Your task to perform on an android device: Clear all items from cart on bestbuy. Add logitech g933 to the cart on bestbuy Image 0: 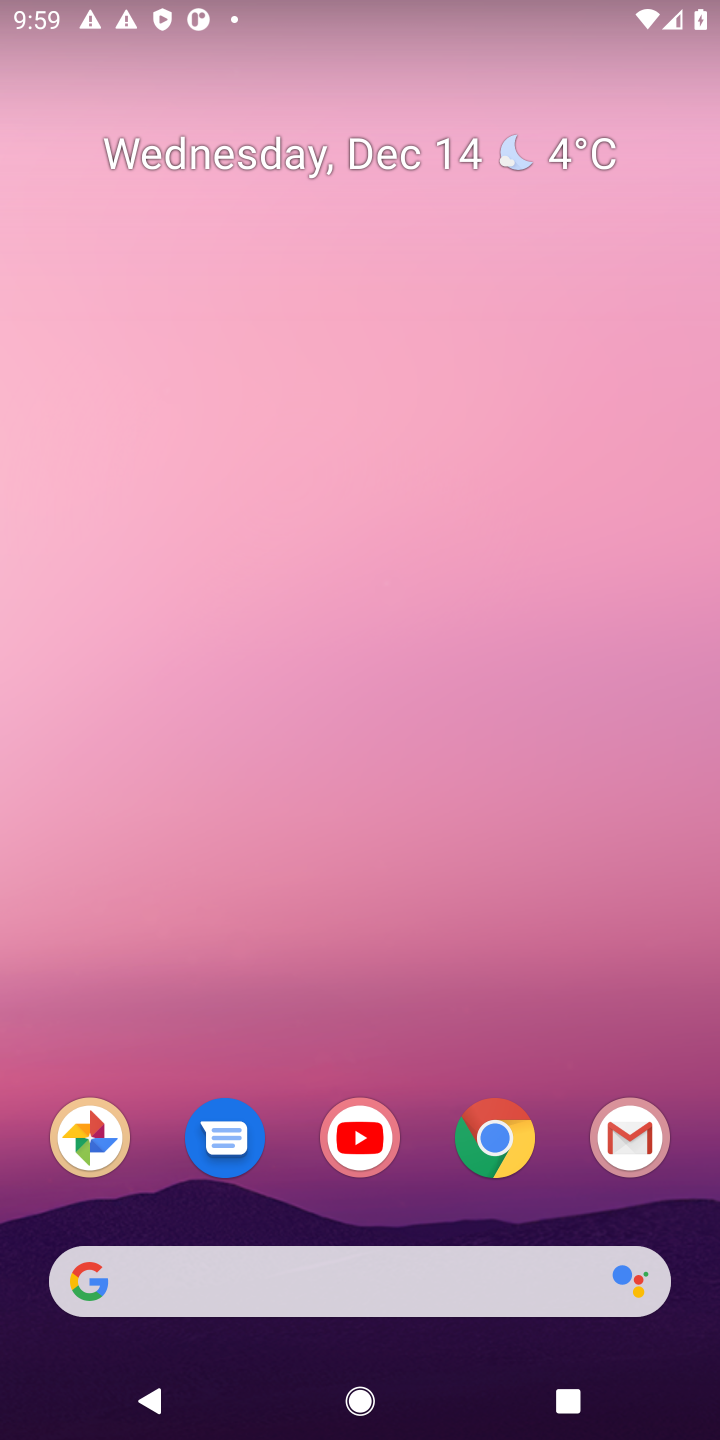
Step 0: click (478, 1155)
Your task to perform on an android device: Clear all items from cart on bestbuy. Add logitech g933 to the cart on bestbuy Image 1: 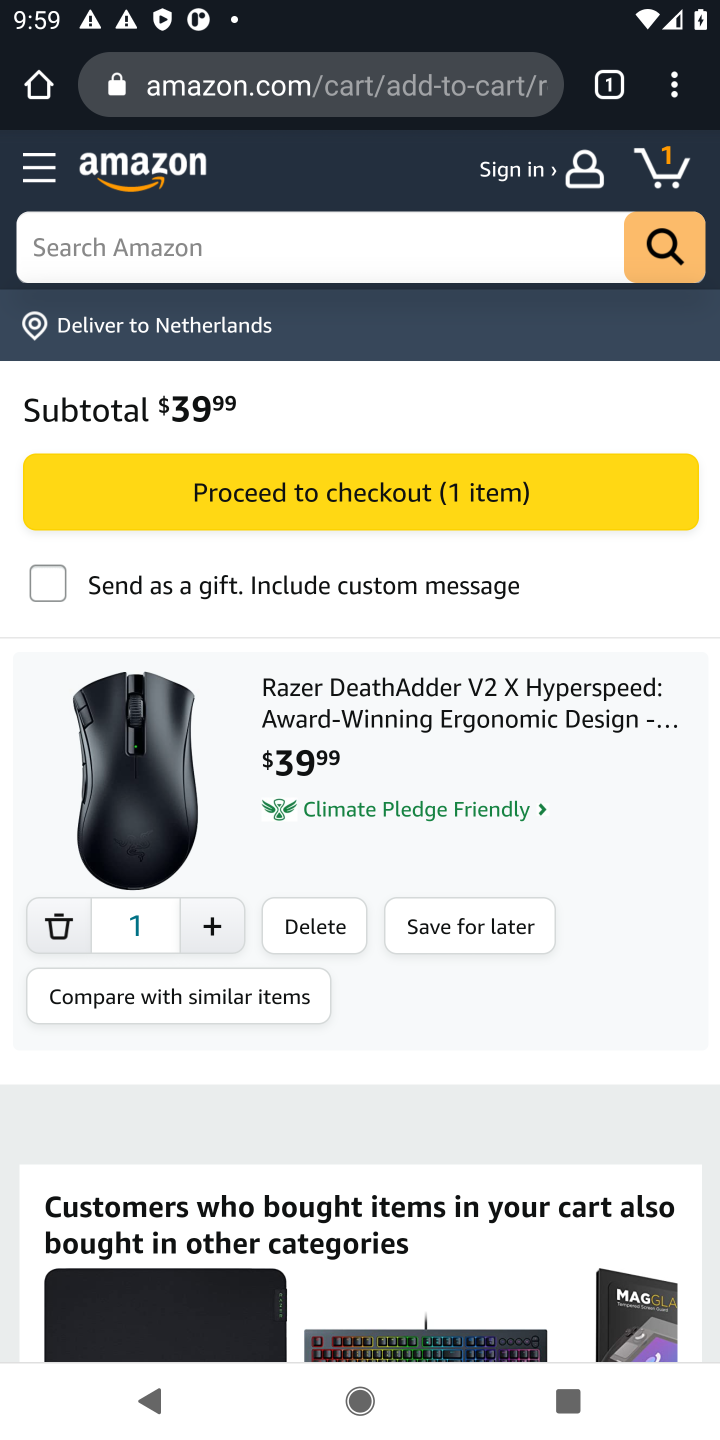
Step 1: click (259, 93)
Your task to perform on an android device: Clear all items from cart on bestbuy. Add logitech g933 to the cart on bestbuy Image 2: 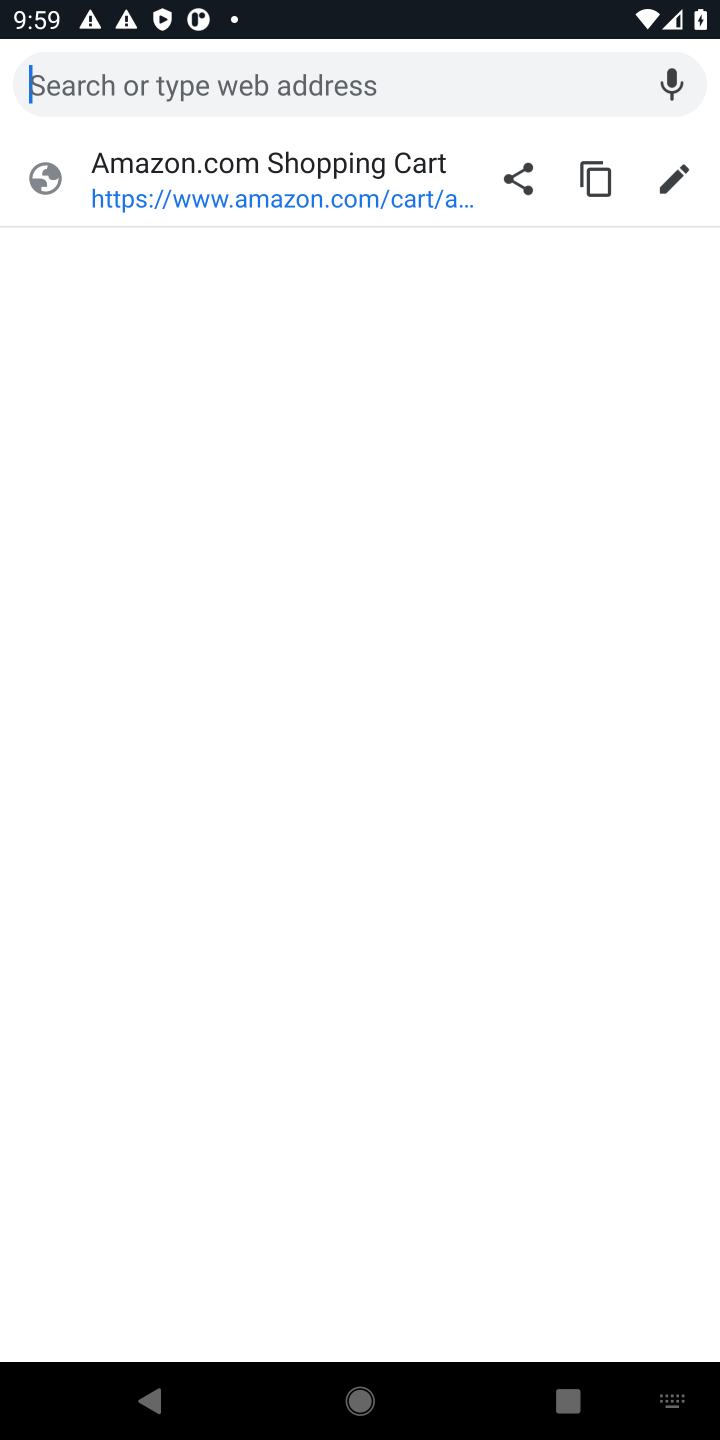
Step 2: type "bestbuy.com"
Your task to perform on an android device: Clear all items from cart on bestbuy. Add logitech g933 to the cart on bestbuy Image 3: 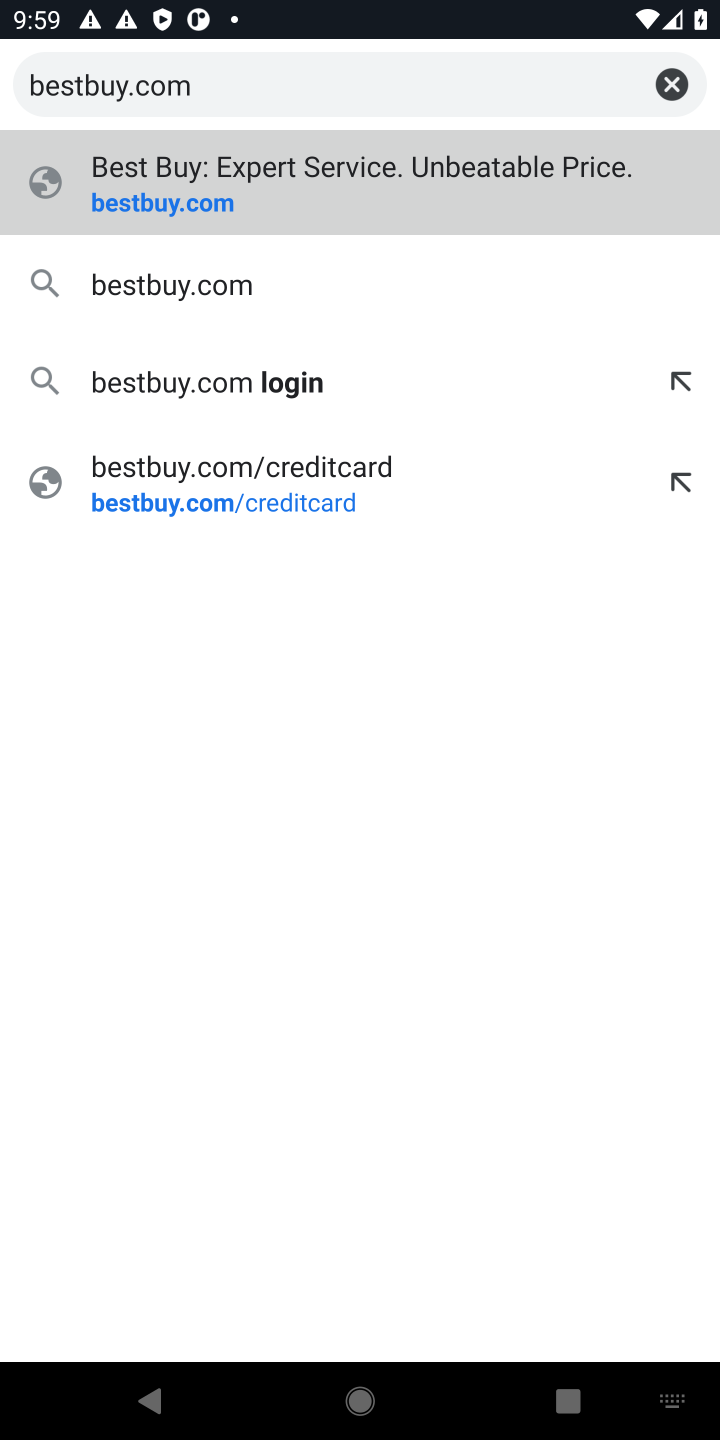
Step 3: click (132, 210)
Your task to perform on an android device: Clear all items from cart on bestbuy. Add logitech g933 to the cart on bestbuy Image 4: 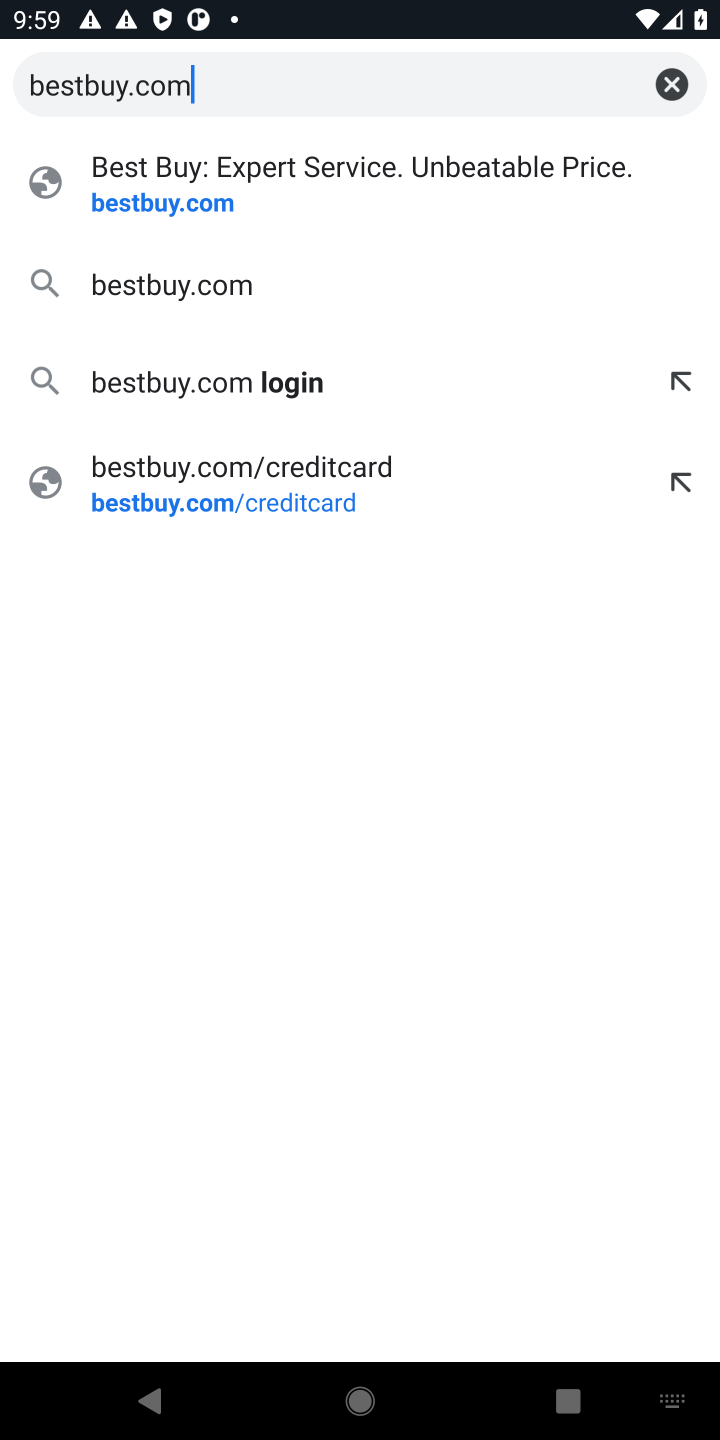
Step 4: click (126, 194)
Your task to perform on an android device: Clear all items from cart on bestbuy. Add logitech g933 to the cart on bestbuy Image 5: 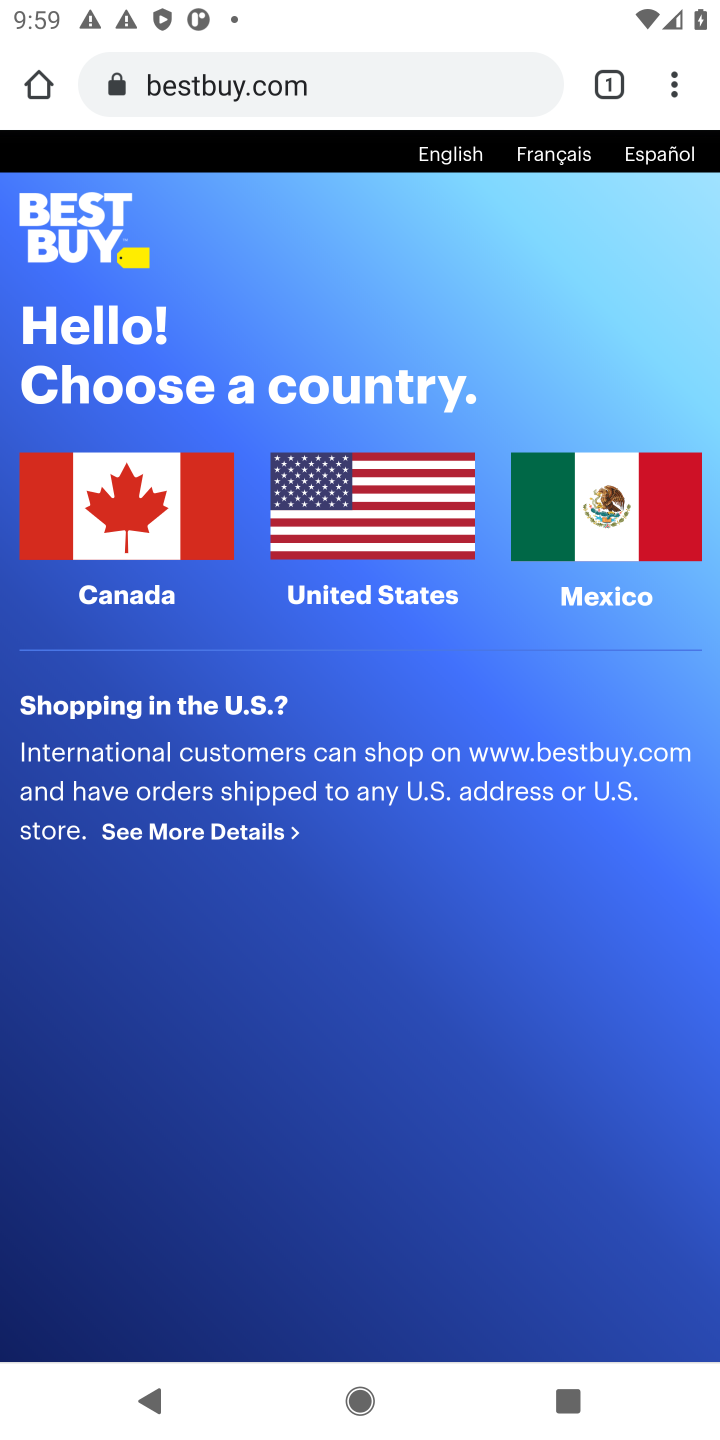
Step 5: click (380, 514)
Your task to perform on an android device: Clear all items from cart on bestbuy. Add logitech g933 to the cart on bestbuy Image 6: 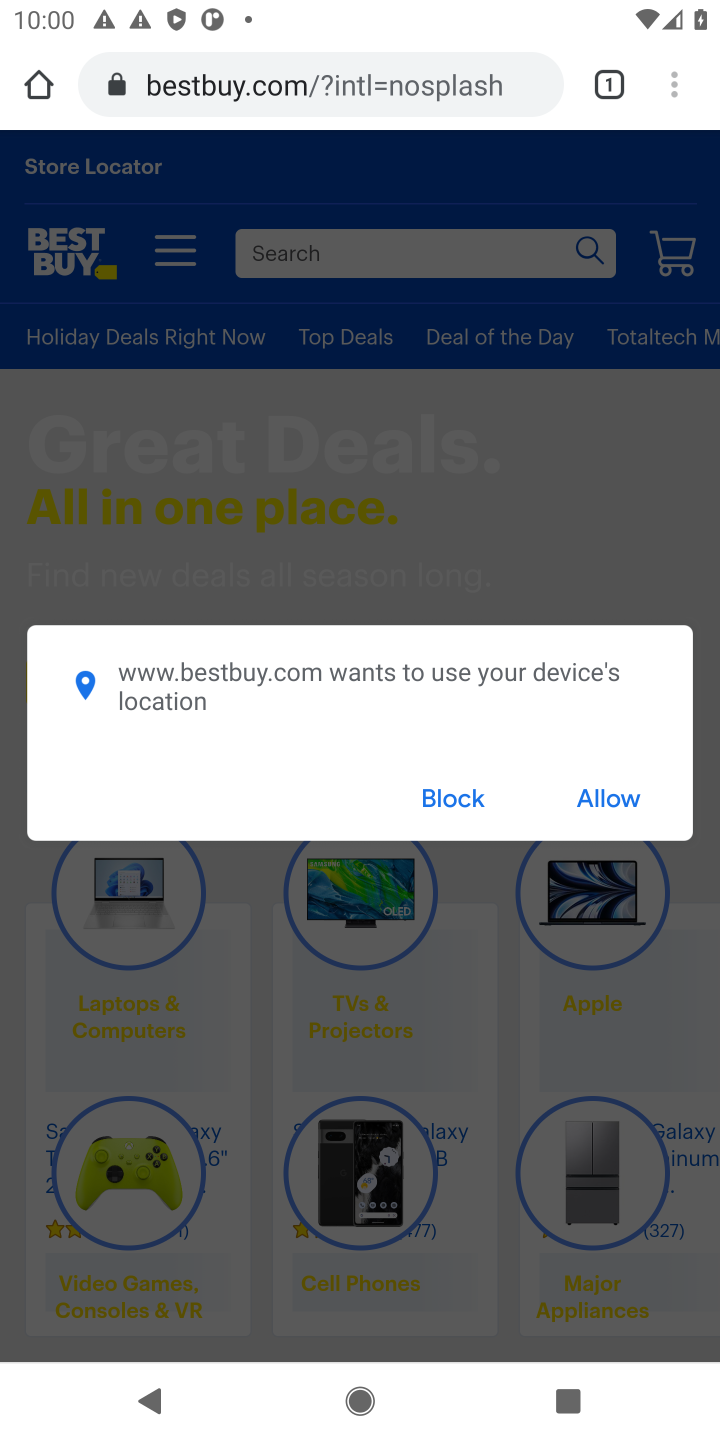
Step 6: click (423, 793)
Your task to perform on an android device: Clear all items from cart on bestbuy. Add logitech g933 to the cart on bestbuy Image 7: 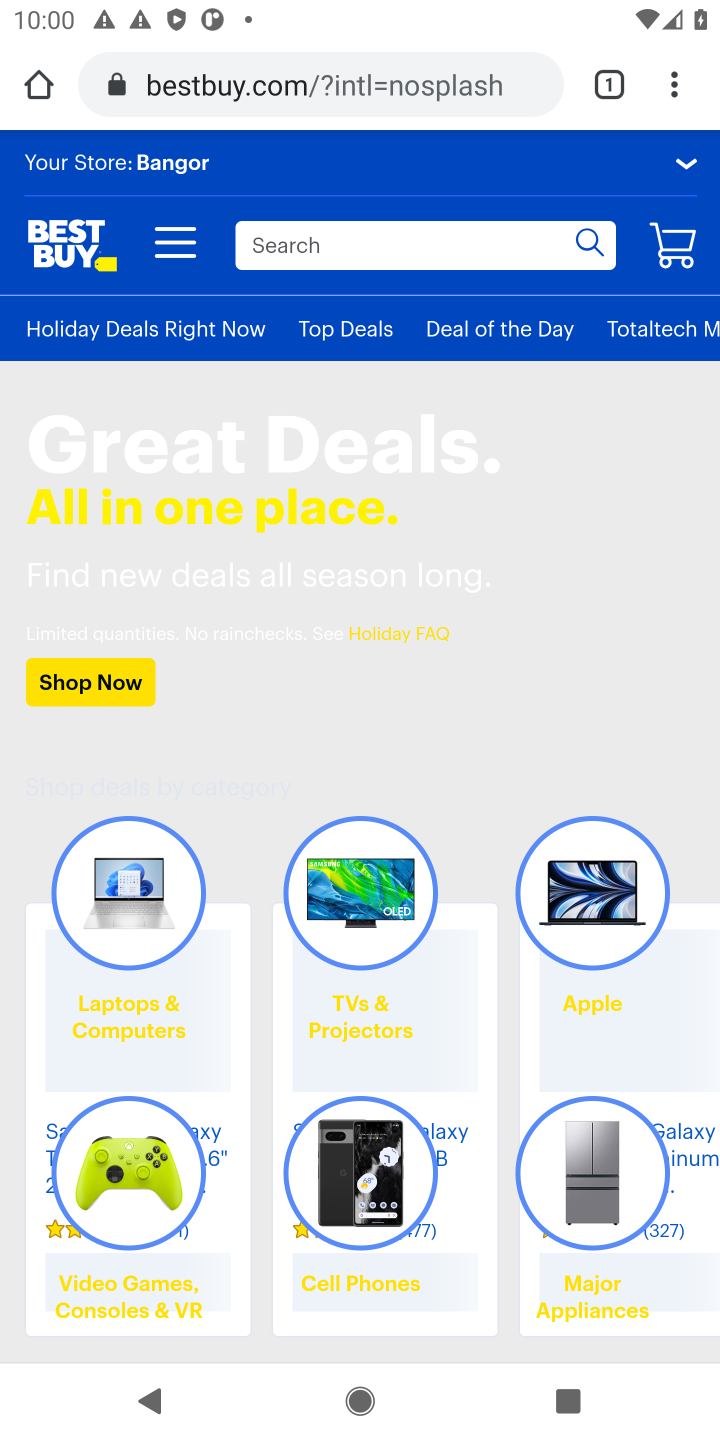
Step 7: click (674, 257)
Your task to perform on an android device: Clear all items from cart on bestbuy. Add logitech g933 to the cart on bestbuy Image 8: 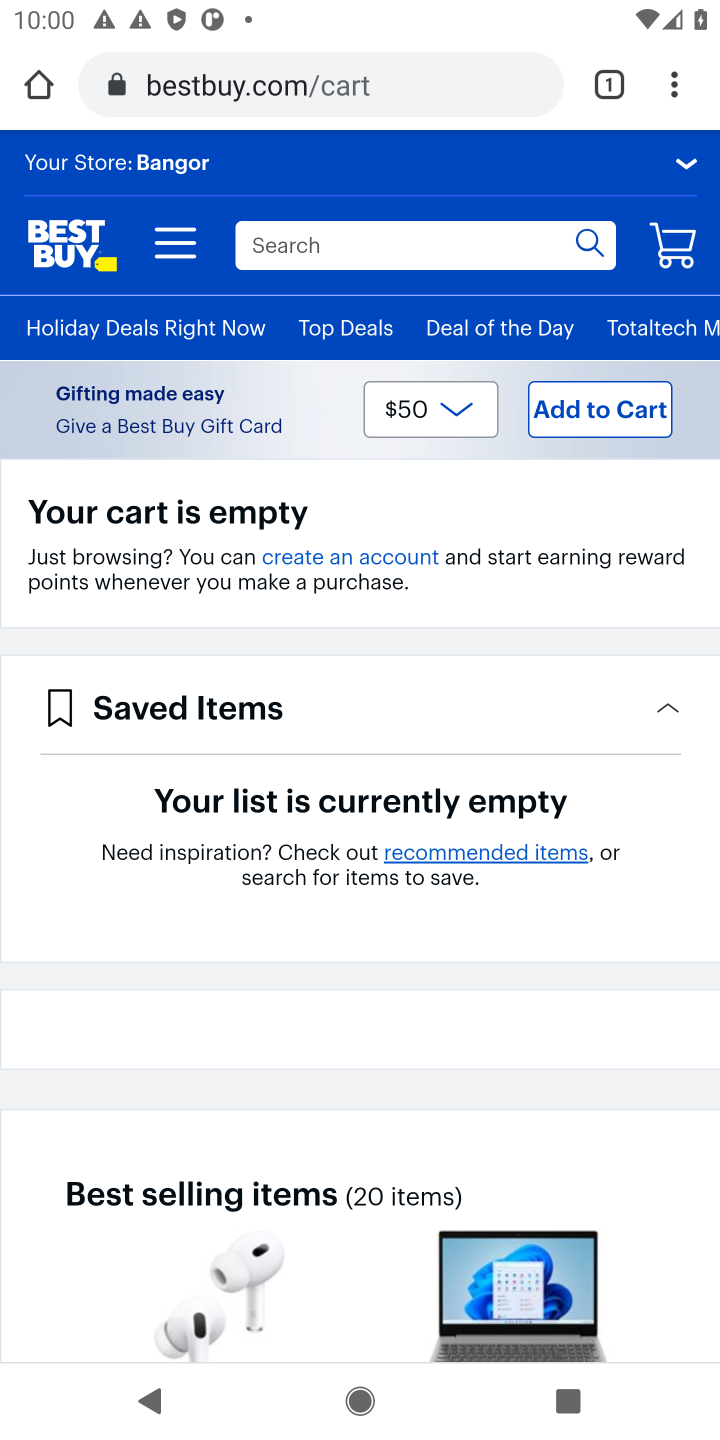
Step 8: click (302, 242)
Your task to perform on an android device: Clear all items from cart on bestbuy. Add logitech g933 to the cart on bestbuy Image 9: 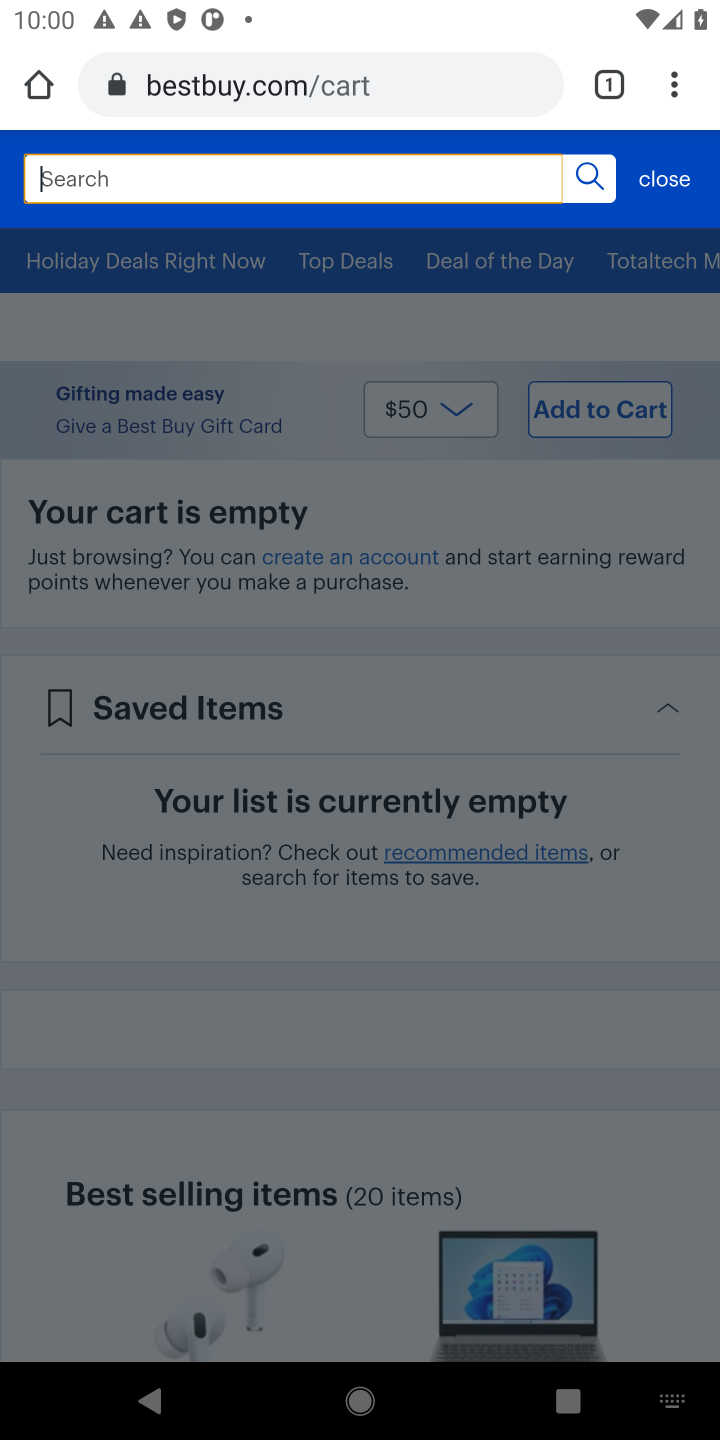
Step 9: type " logitech g933"
Your task to perform on an android device: Clear all items from cart on bestbuy. Add logitech g933 to the cart on bestbuy Image 10: 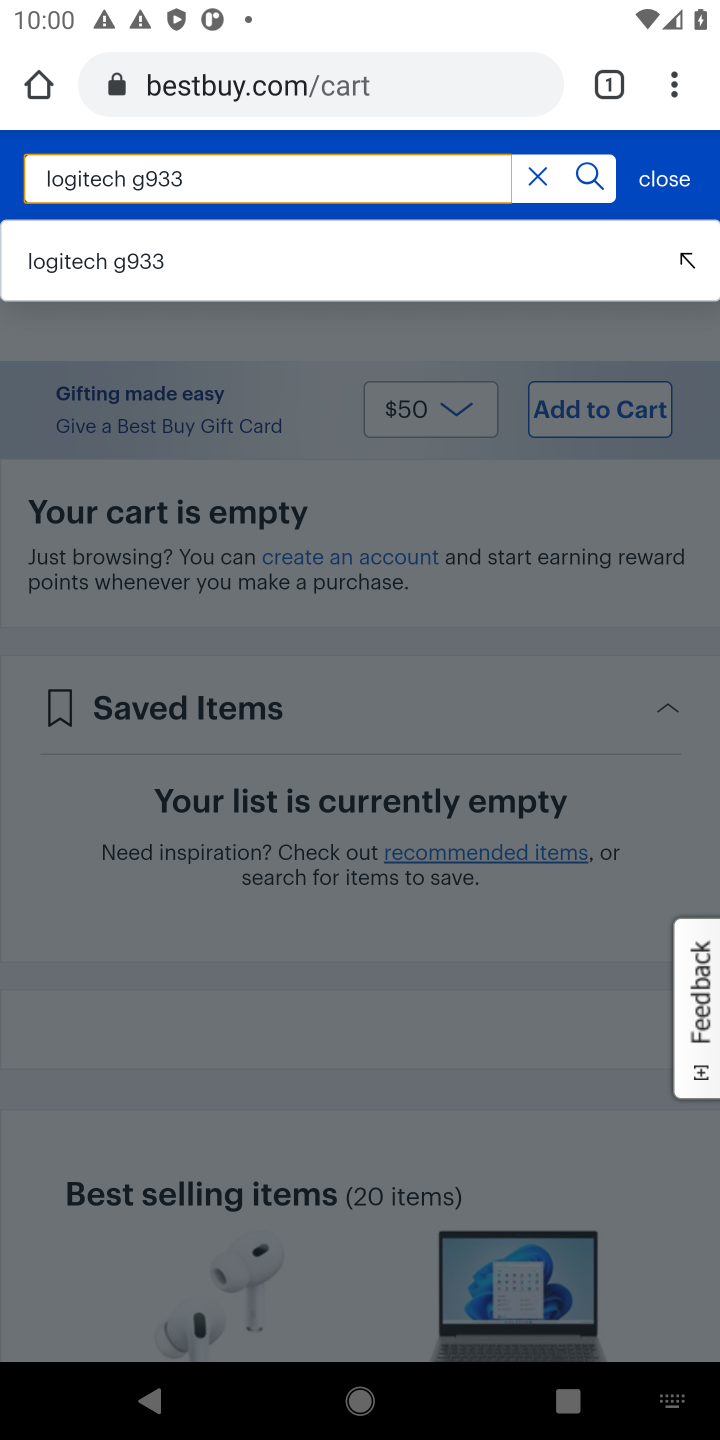
Step 10: click (69, 273)
Your task to perform on an android device: Clear all items from cart on bestbuy. Add logitech g933 to the cart on bestbuy Image 11: 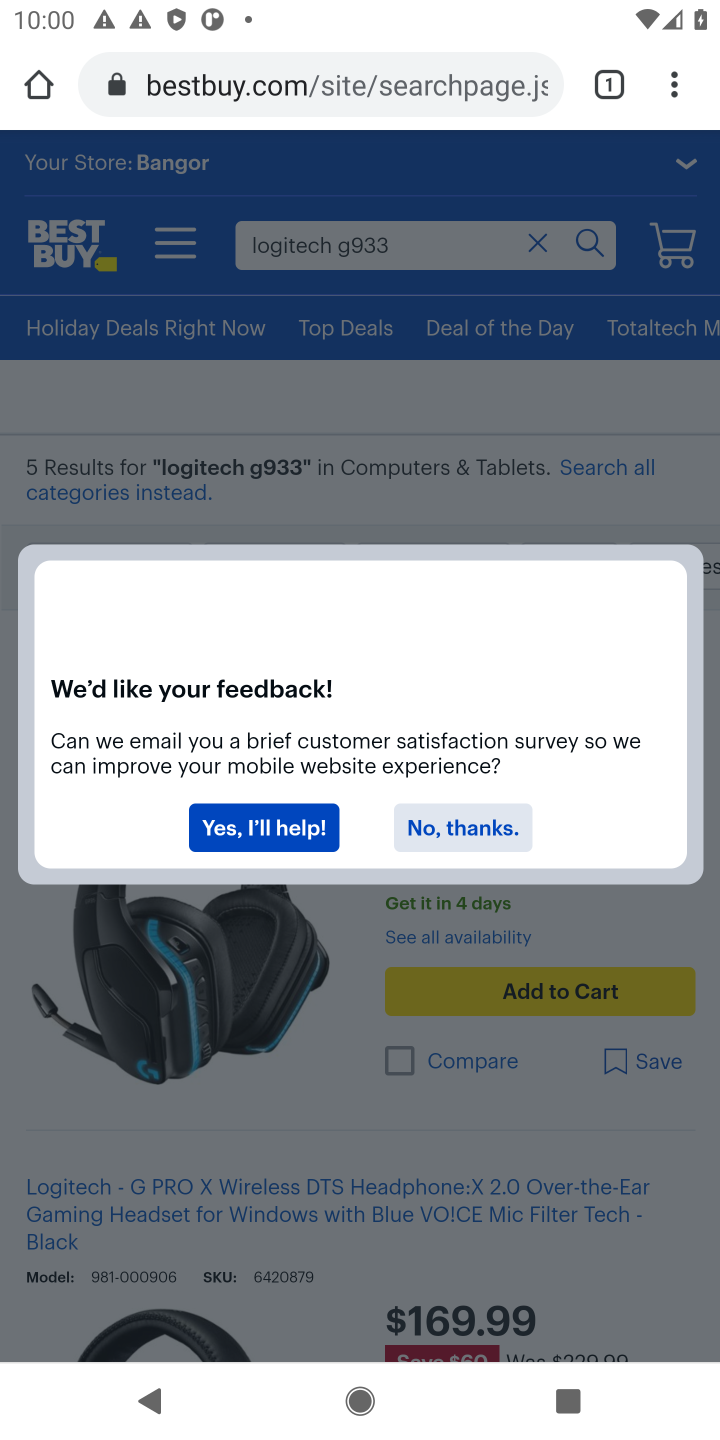
Step 11: drag from (173, 888) to (163, 554)
Your task to perform on an android device: Clear all items from cart on bestbuy. Add logitech g933 to the cart on bestbuy Image 12: 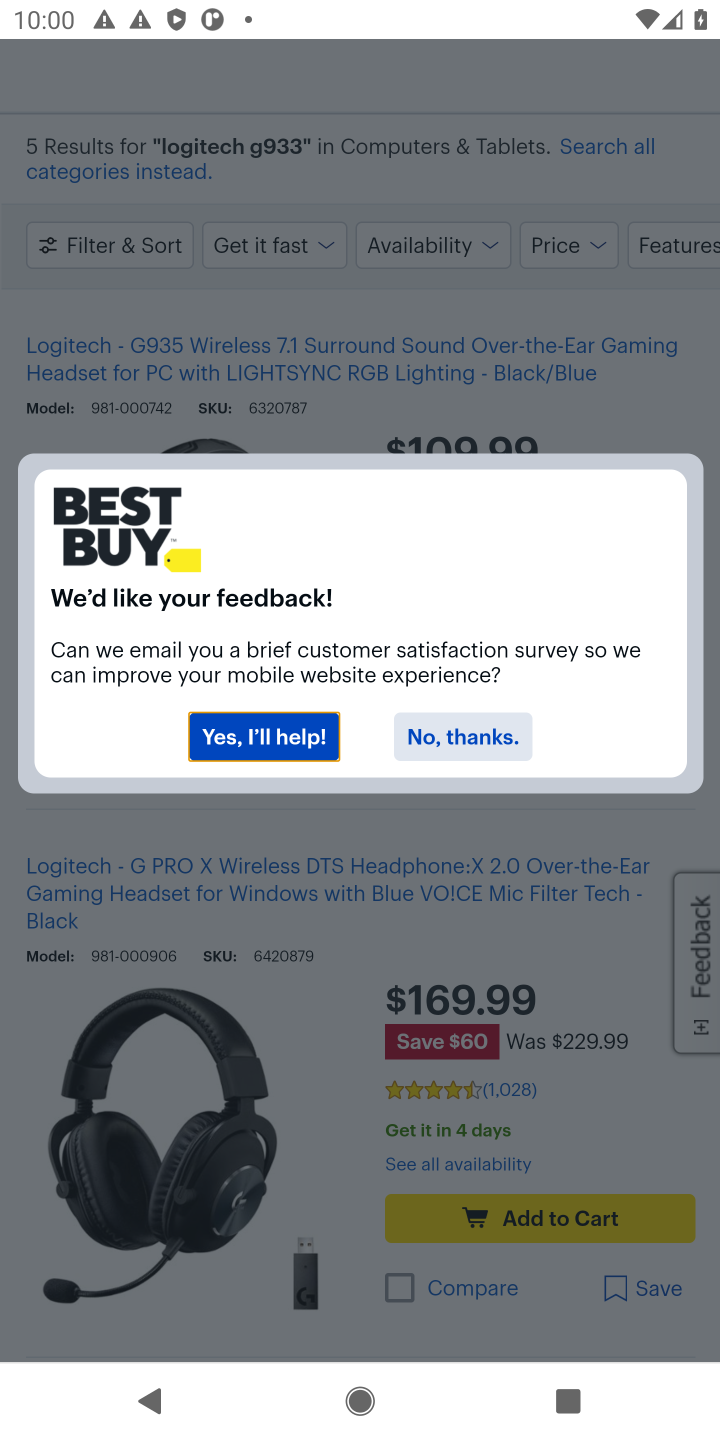
Step 12: click (446, 744)
Your task to perform on an android device: Clear all items from cart on bestbuy. Add logitech g933 to the cart on bestbuy Image 13: 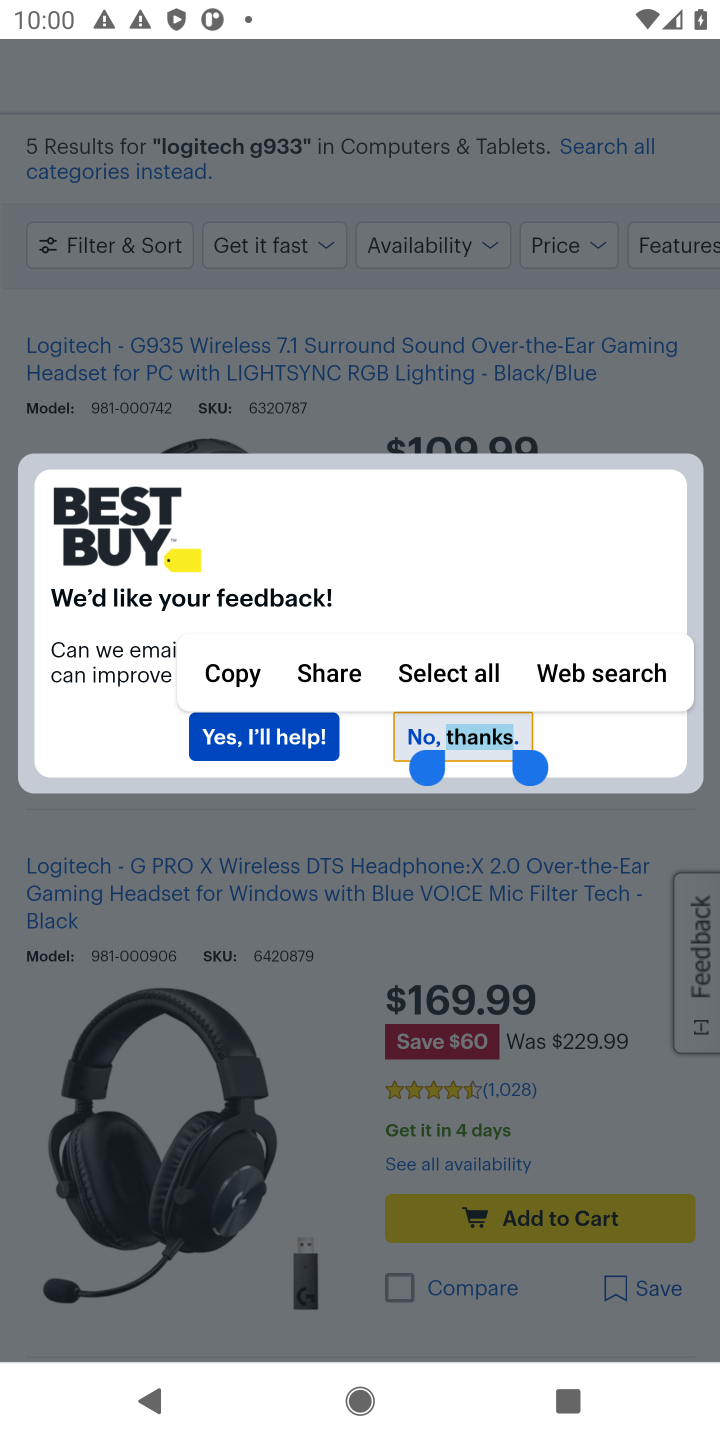
Step 13: click (431, 742)
Your task to perform on an android device: Clear all items from cart on bestbuy. Add logitech g933 to the cart on bestbuy Image 14: 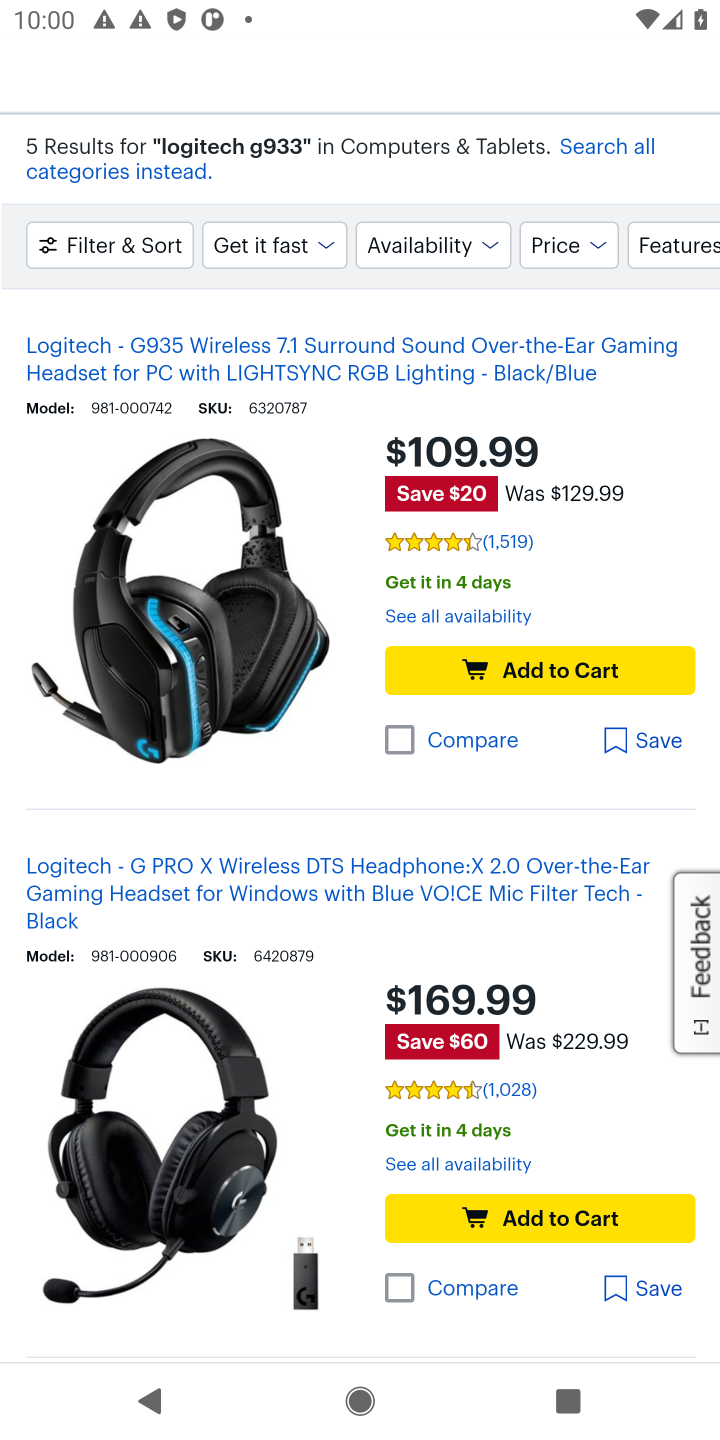
Step 14: task complete